Your task to perform on an android device: turn notification dots off Image 0: 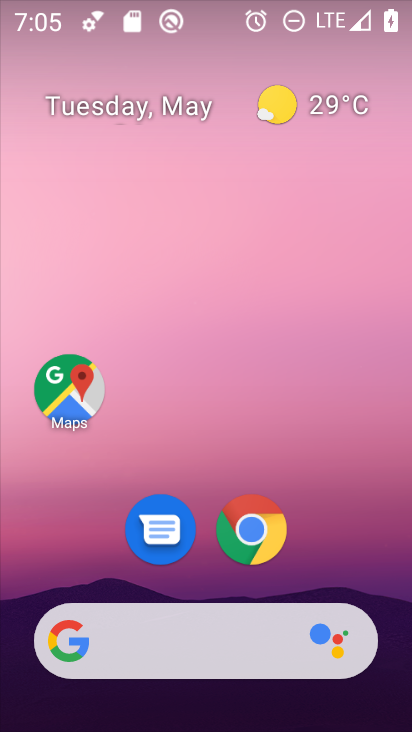
Step 0: drag from (377, 577) to (268, 22)
Your task to perform on an android device: turn notification dots off Image 1: 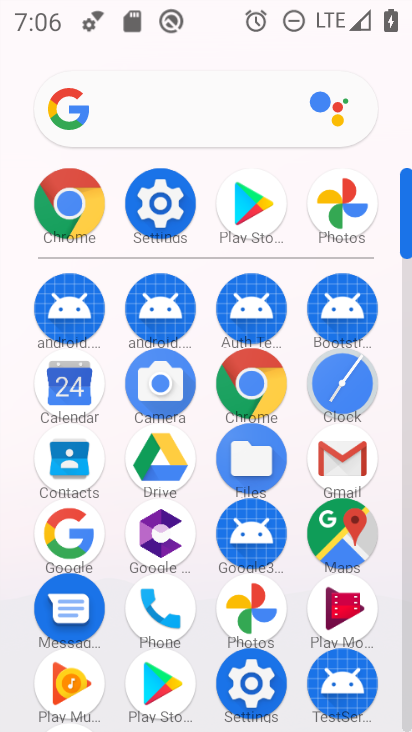
Step 1: click (175, 211)
Your task to perform on an android device: turn notification dots off Image 2: 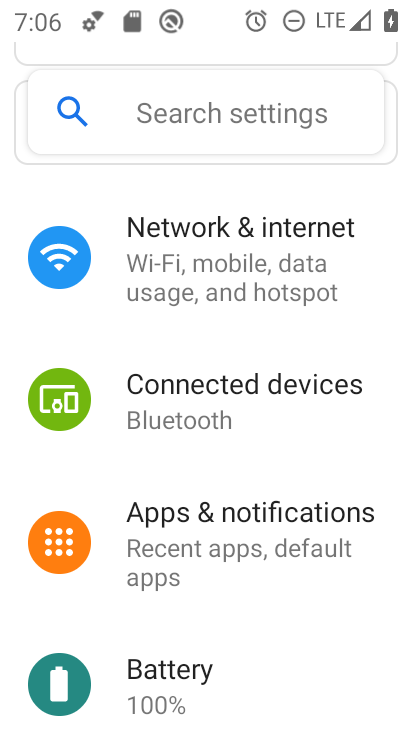
Step 2: click (278, 558)
Your task to perform on an android device: turn notification dots off Image 3: 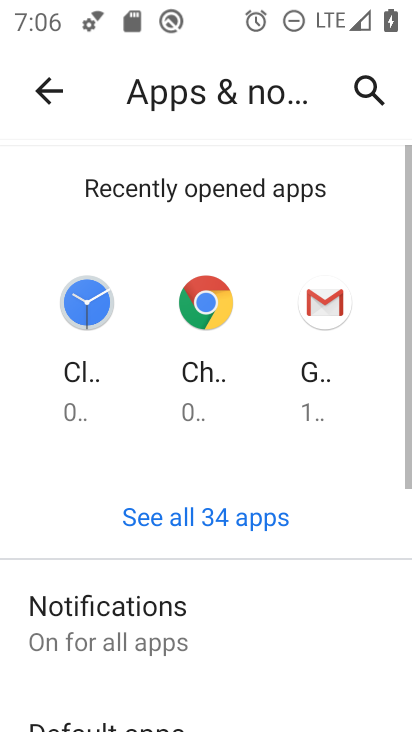
Step 3: click (189, 618)
Your task to perform on an android device: turn notification dots off Image 4: 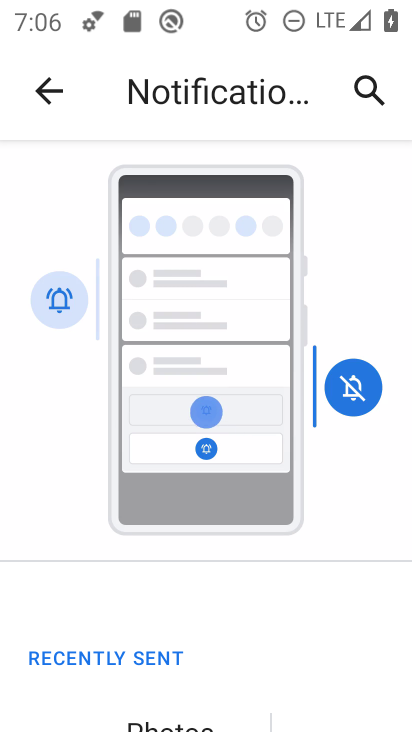
Step 4: drag from (192, 679) to (204, 124)
Your task to perform on an android device: turn notification dots off Image 5: 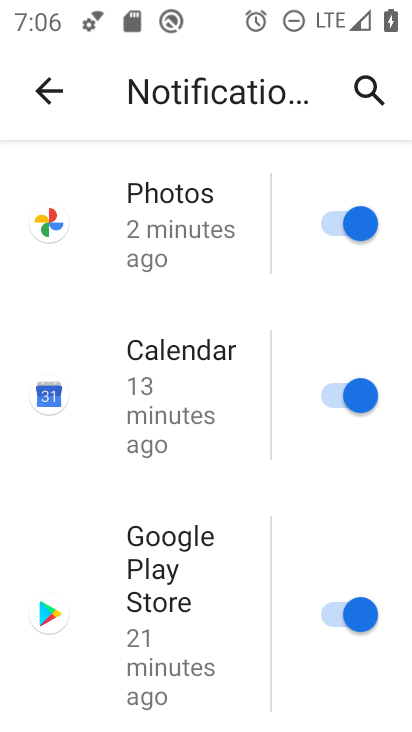
Step 5: drag from (180, 658) to (167, 110)
Your task to perform on an android device: turn notification dots off Image 6: 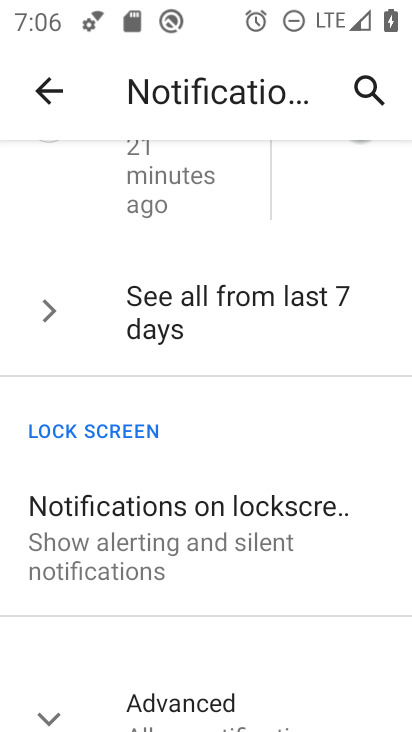
Step 6: drag from (154, 656) to (200, 167)
Your task to perform on an android device: turn notification dots off Image 7: 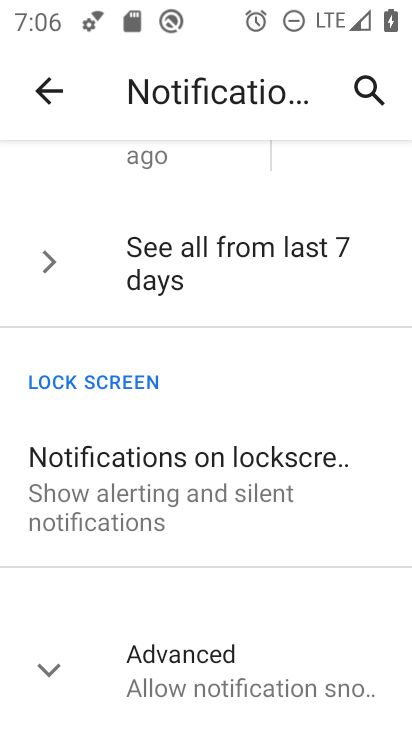
Step 7: click (51, 657)
Your task to perform on an android device: turn notification dots off Image 8: 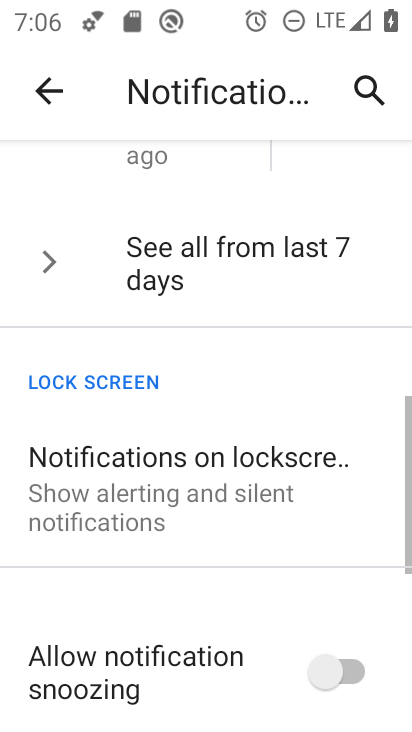
Step 8: drag from (189, 647) to (202, 193)
Your task to perform on an android device: turn notification dots off Image 9: 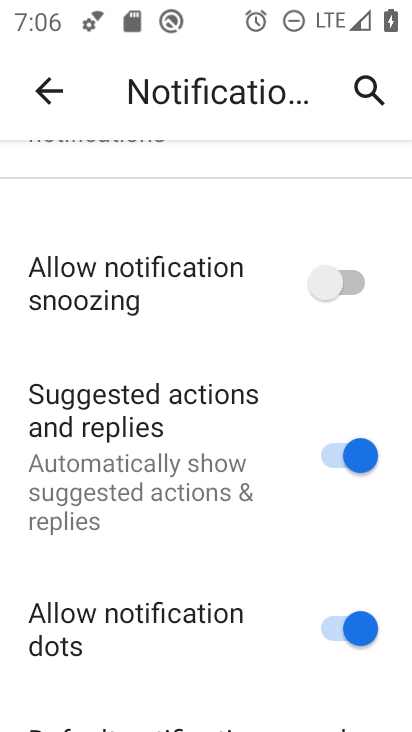
Step 9: click (276, 625)
Your task to perform on an android device: turn notification dots off Image 10: 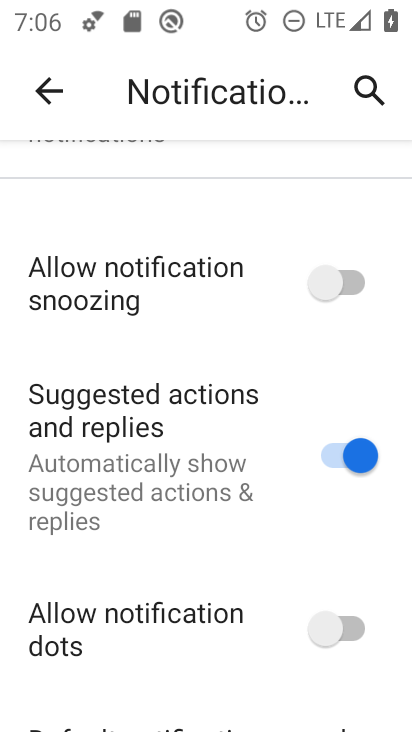
Step 10: task complete